Your task to perform on an android device: Open Chrome and go to settings Image 0: 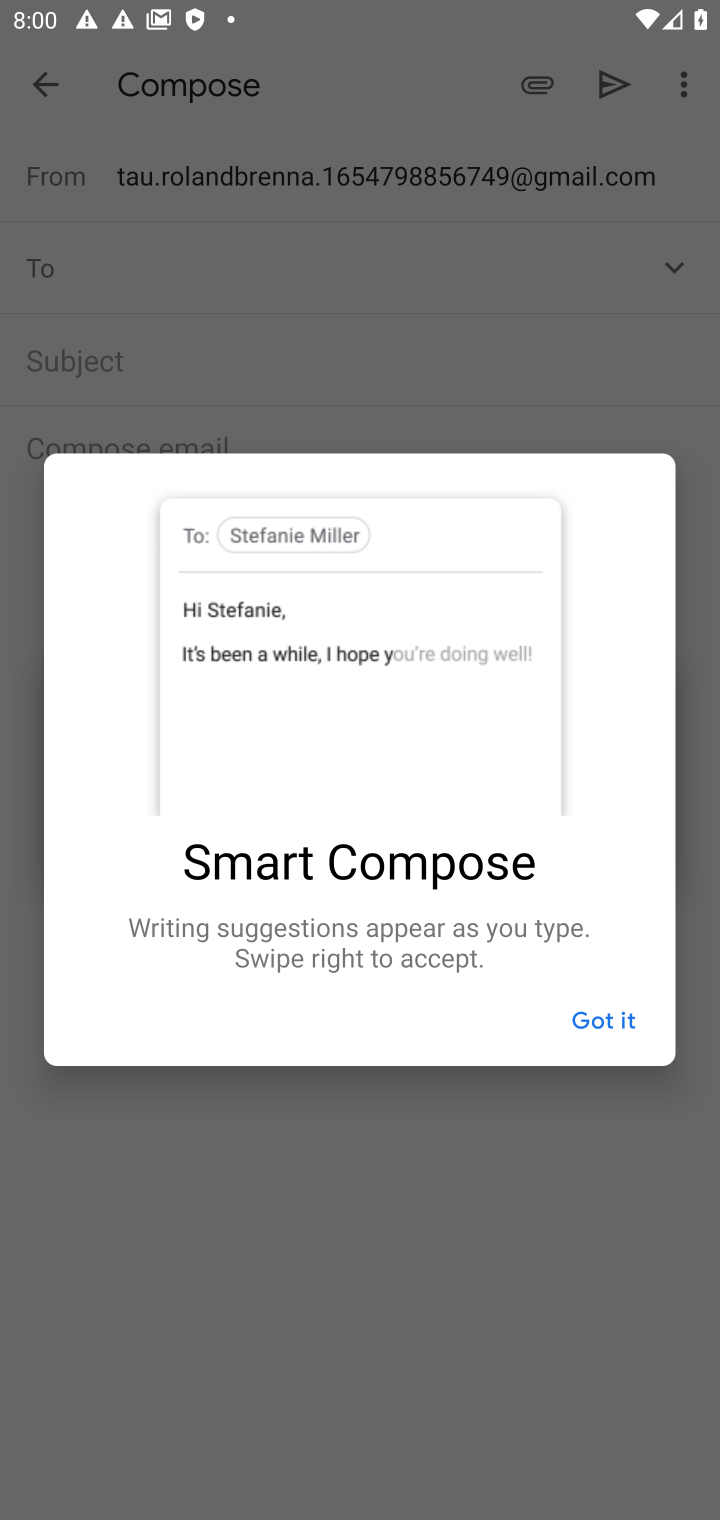
Step 0: press home button
Your task to perform on an android device: Open Chrome and go to settings Image 1: 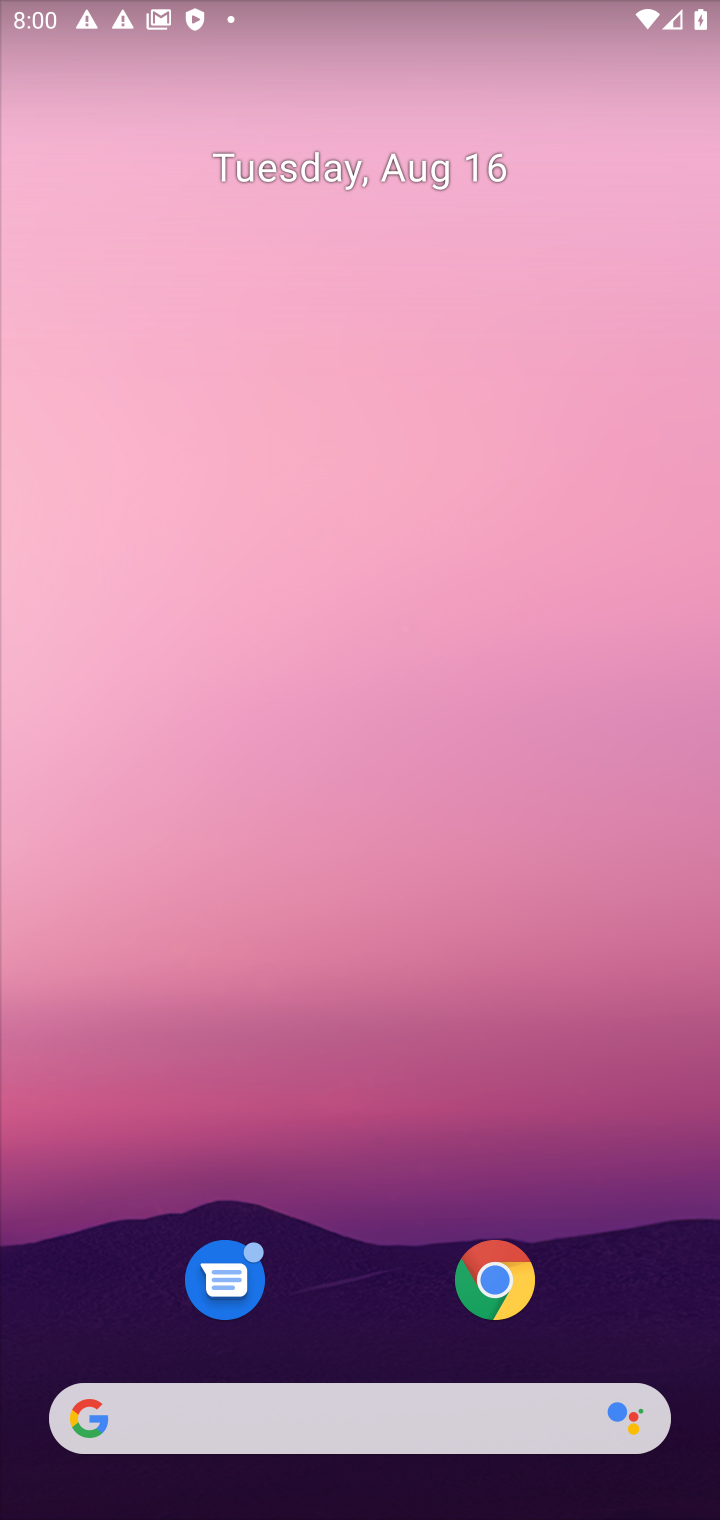
Step 1: click (515, 1268)
Your task to perform on an android device: Open Chrome and go to settings Image 2: 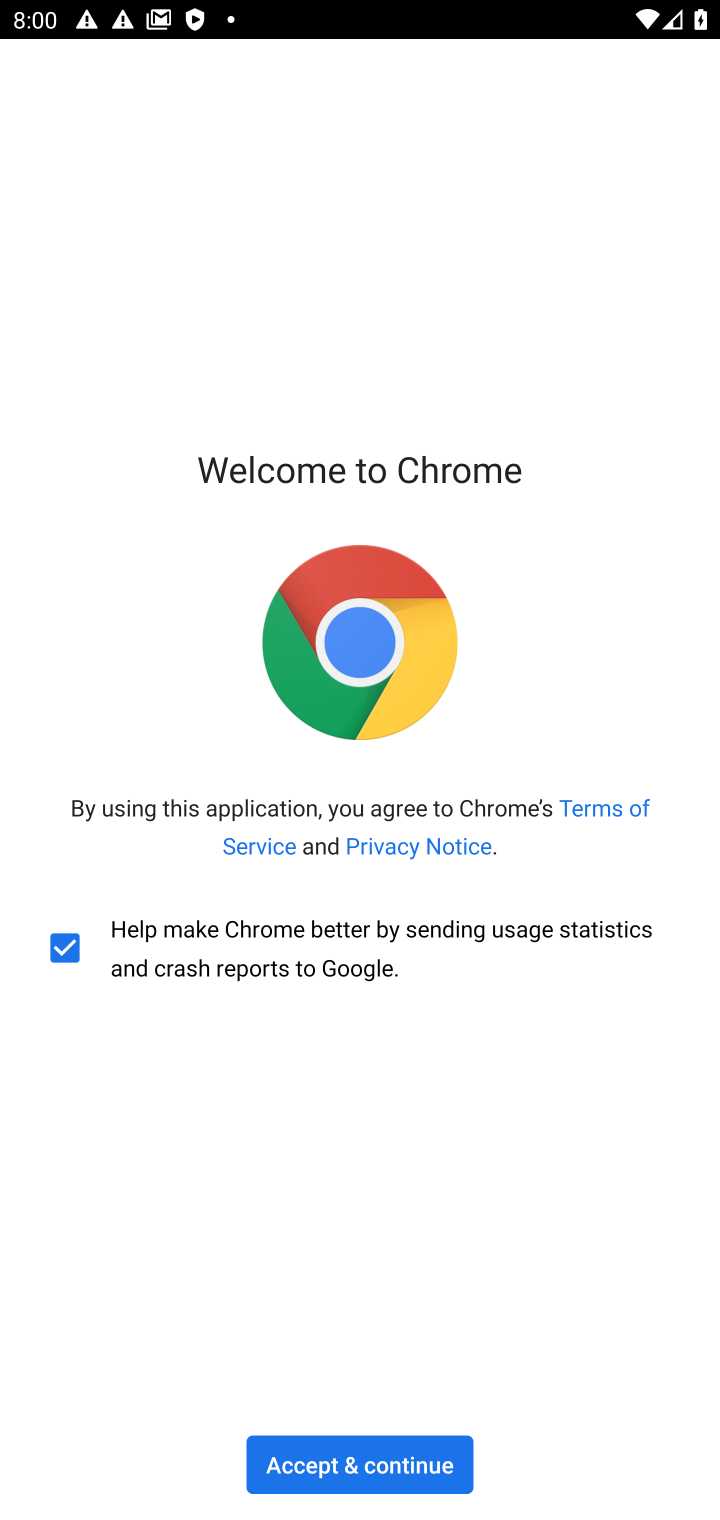
Step 2: click (354, 1467)
Your task to perform on an android device: Open Chrome and go to settings Image 3: 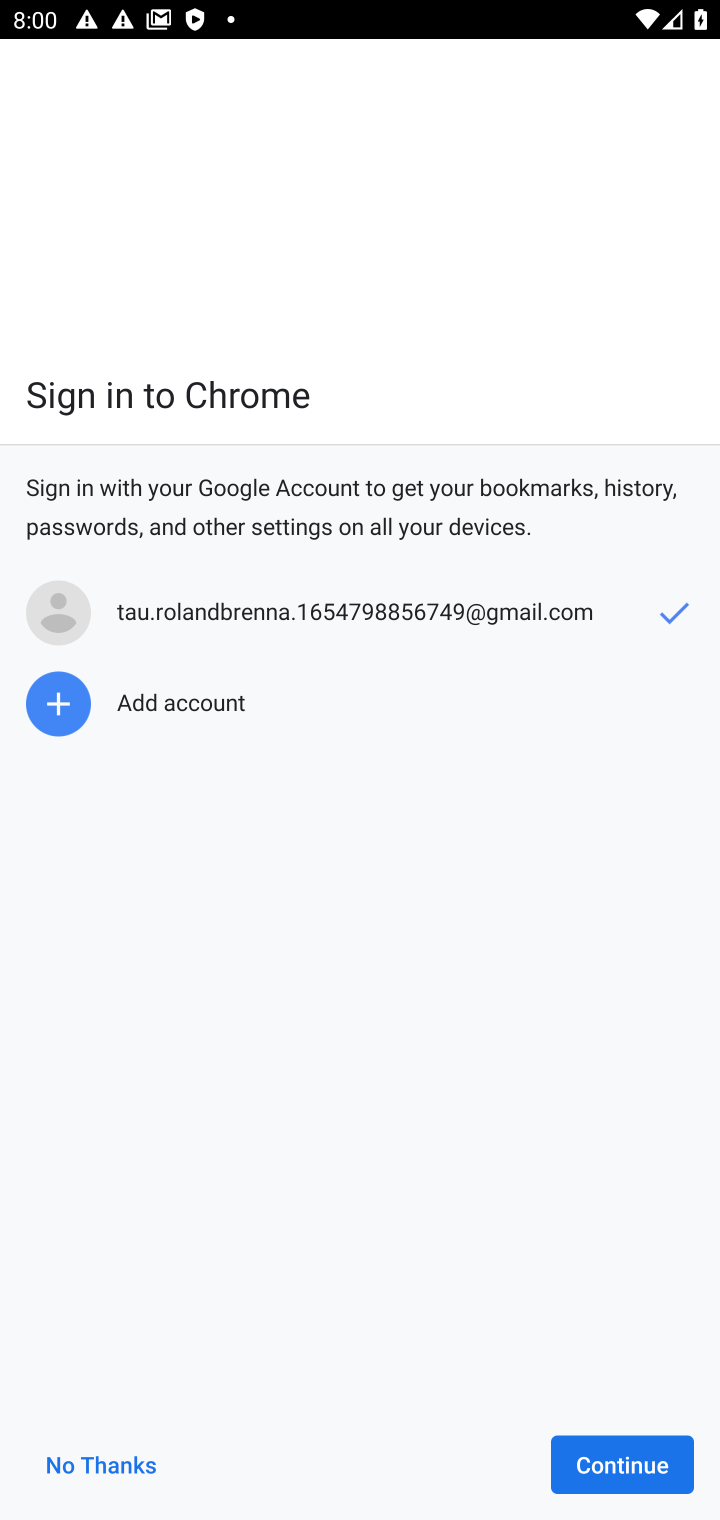
Step 3: click (599, 1456)
Your task to perform on an android device: Open Chrome and go to settings Image 4: 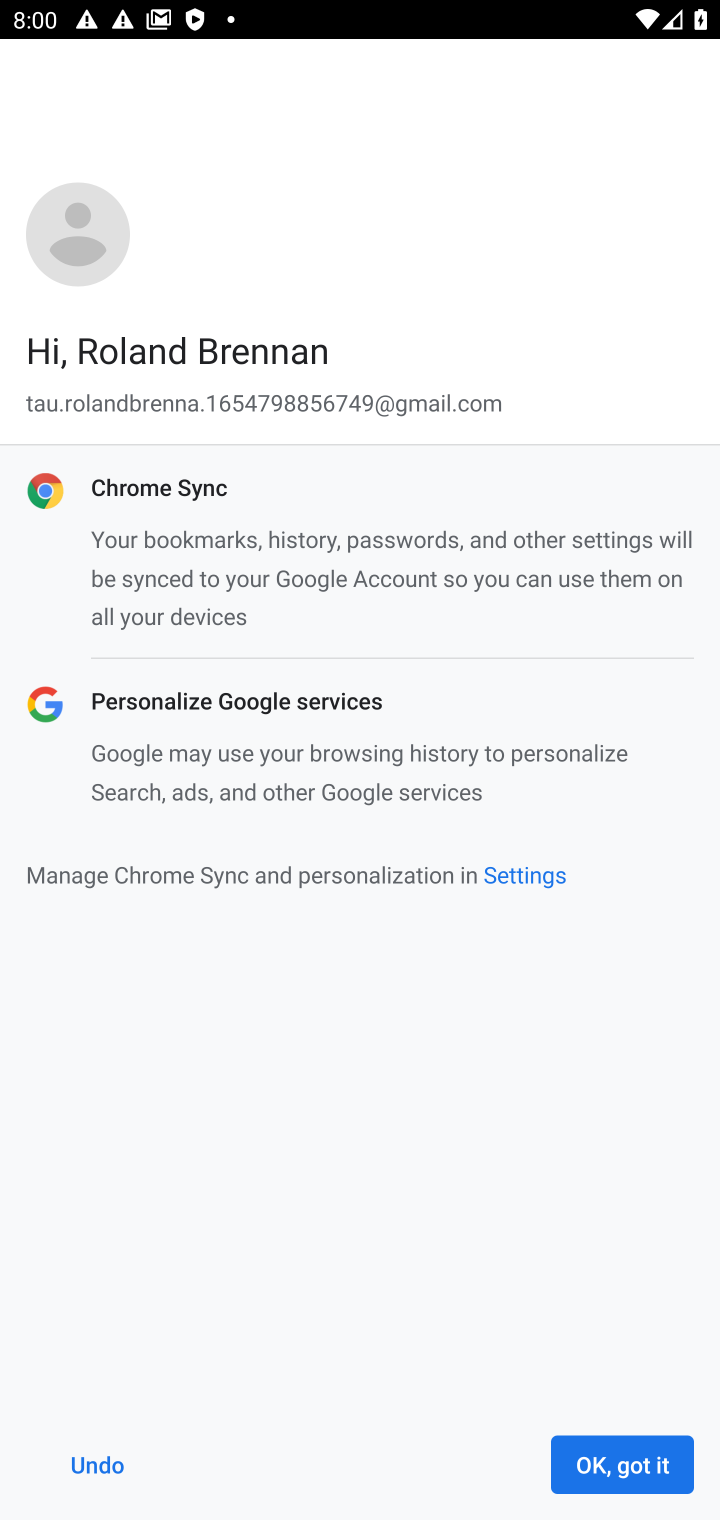
Step 4: click (586, 1479)
Your task to perform on an android device: Open Chrome and go to settings Image 5: 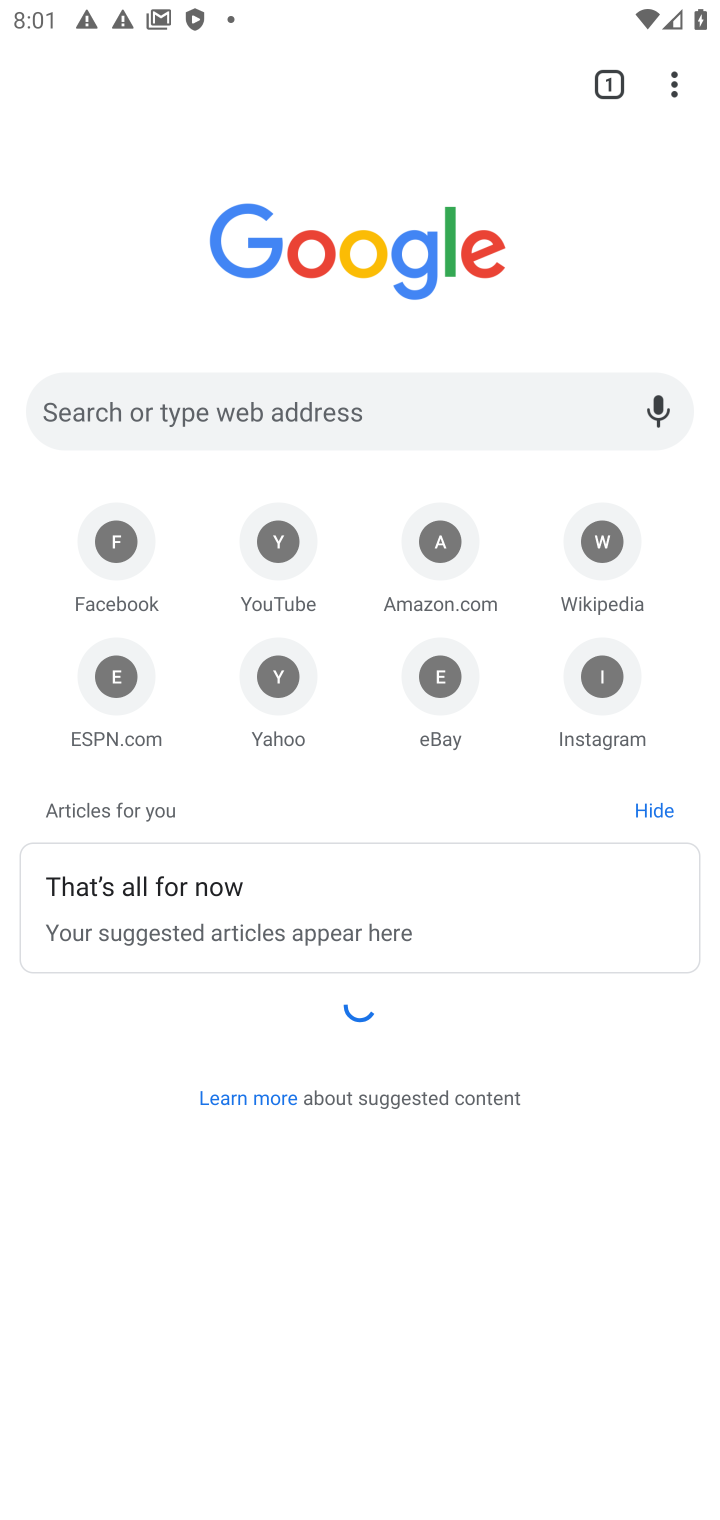
Step 5: click (667, 81)
Your task to perform on an android device: Open Chrome and go to settings Image 6: 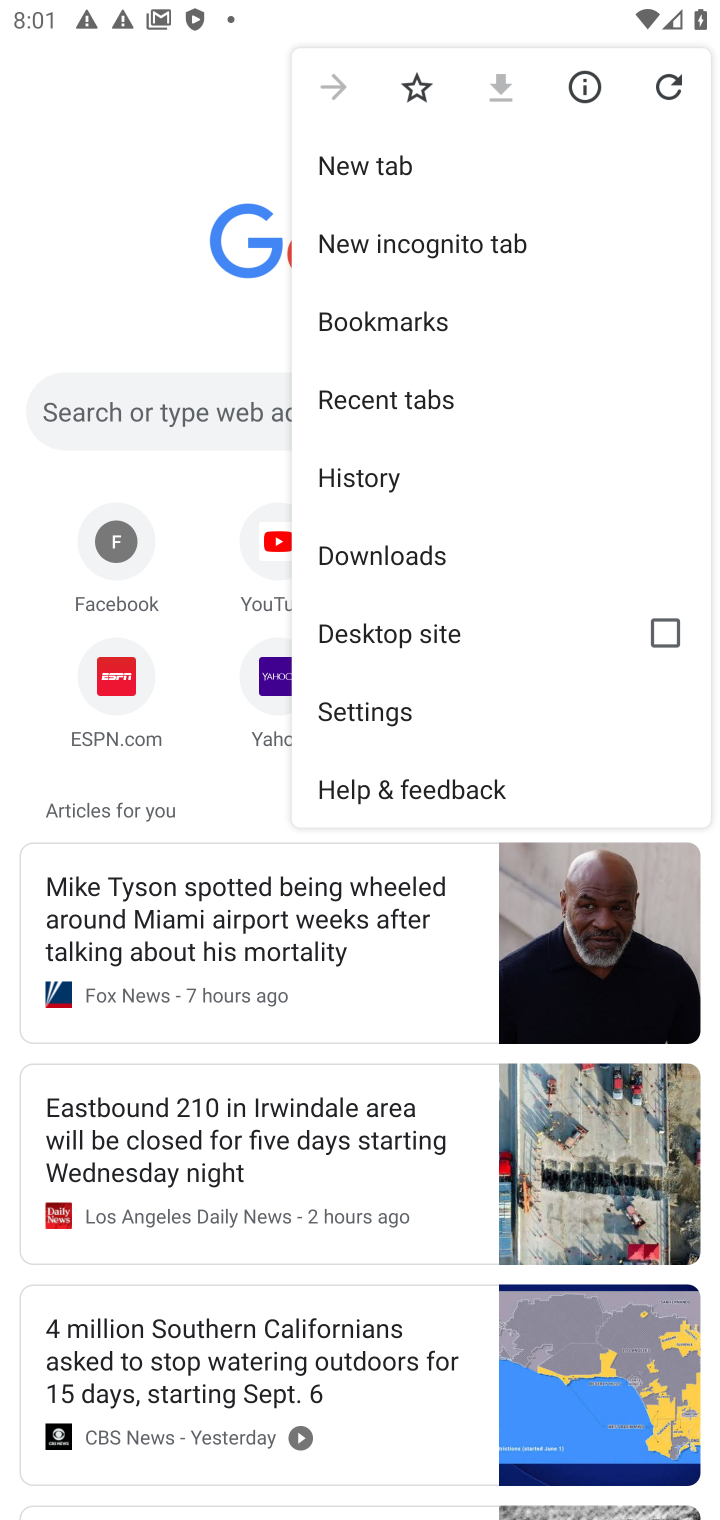
Step 6: click (357, 711)
Your task to perform on an android device: Open Chrome and go to settings Image 7: 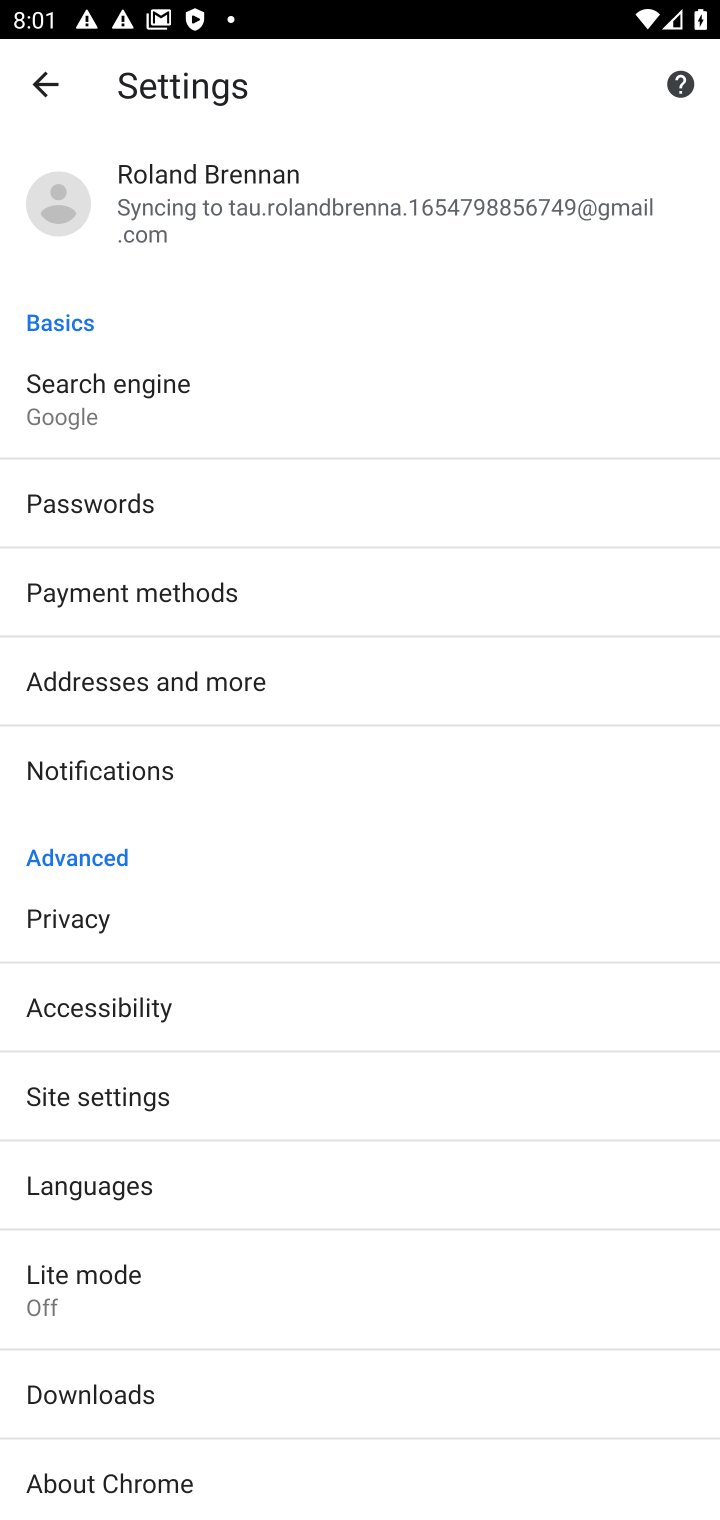
Step 7: task complete